Your task to perform on an android device: See recent photos Image 0: 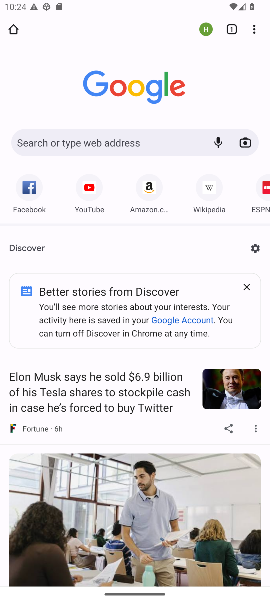
Step 0: press home button
Your task to perform on an android device: See recent photos Image 1: 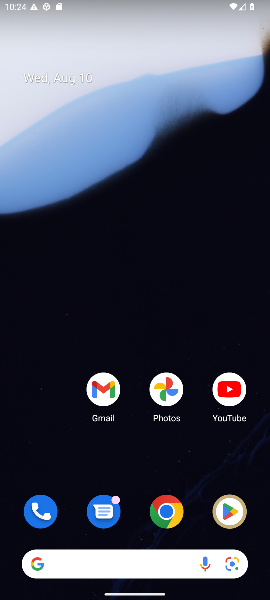
Step 1: click (159, 394)
Your task to perform on an android device: See recent photos Image 2: 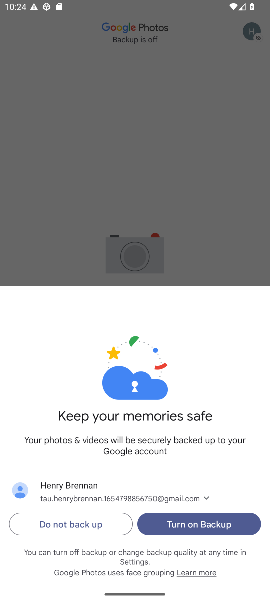
Step 2: click (218, 525)
Your task to perform on an android device: See recent photos Image 3: 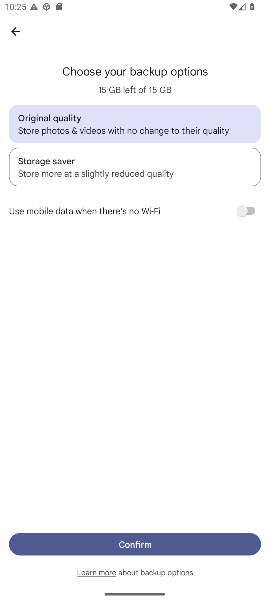
Step 3: click (132, 543)
Your task to perform on an android device: See recent photos Image 4: 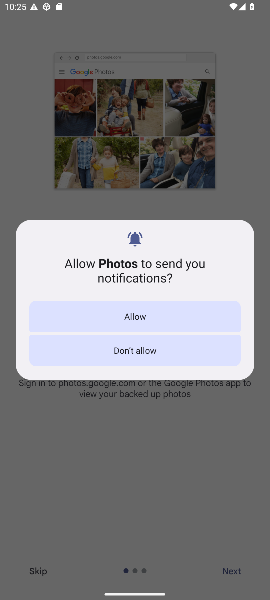
Step 4: click (133, 314)
Your task to perform on an android device: See recent photos Image 5: 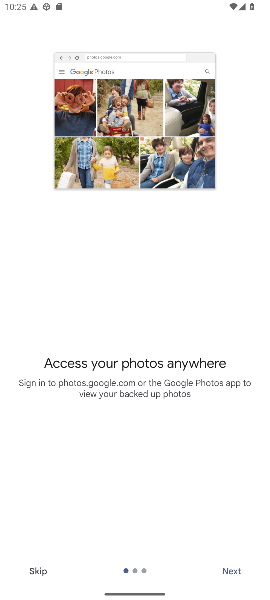
Step 5: click (237, 567)
Your task to perform on an android device: See recent photos Image 6: 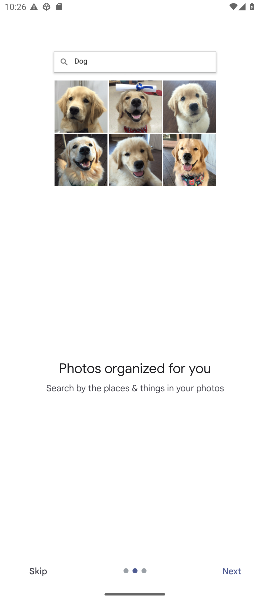
Step 6: click (219, 571)
Your task to perform on an android device: See recent photos Image 7: 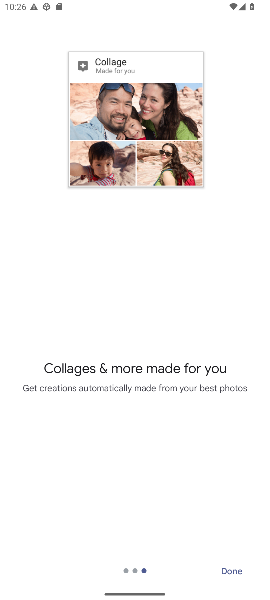
Step 7: click (224, 575)
Your task to perform on an android device: See recent photos Image 8: 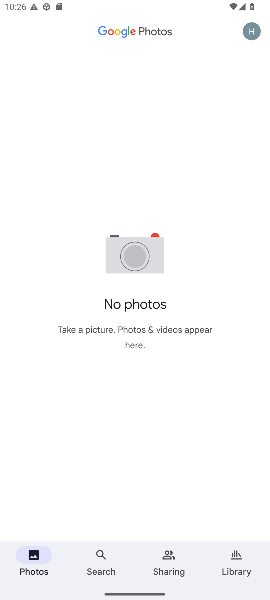
Step 8: task complete